Your task to perform on an android device: change notification settings in the gmail app Image 0: 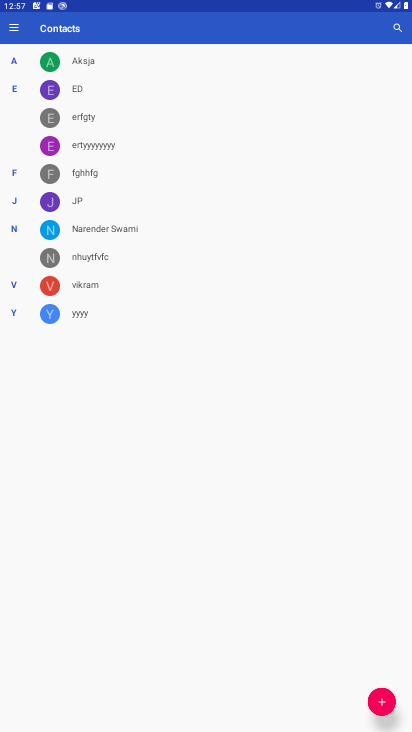
Step 0: press home button
Your task to perform on an android device: change notification settings in the gmail app Image 1: 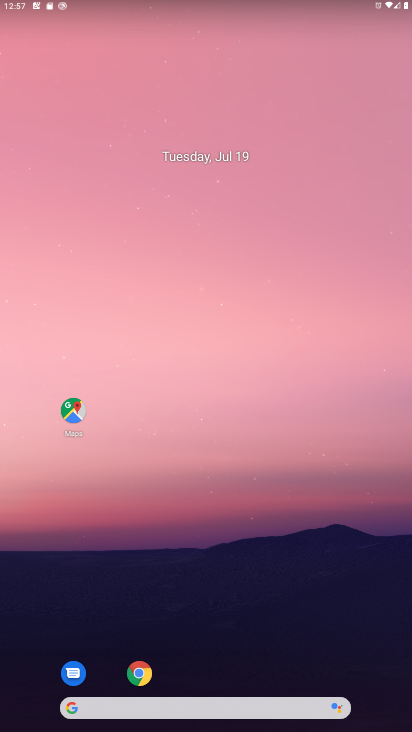
Step 1: drag from (213, 657) to (226, 169)
Your task to perform on an android device: change notification settings in the gmail app Image 2: 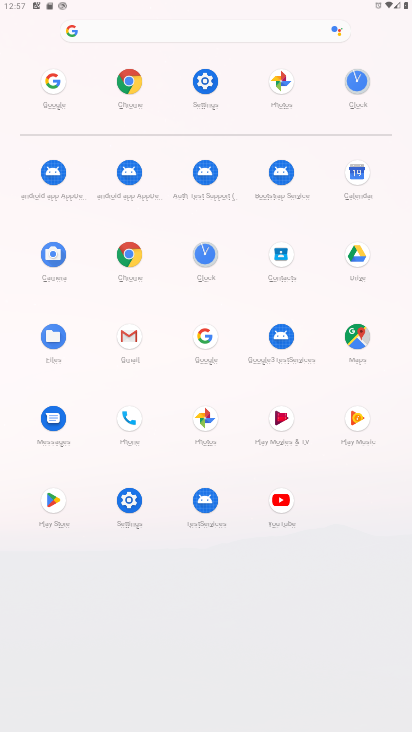
Step 2: click (142, 337)
Your task to perform on an android device: change notification settings in the gmail app Image 3: 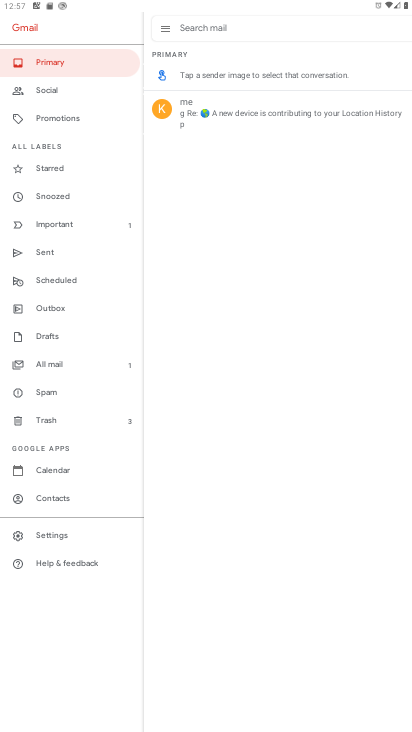
Step 3: click (56, 528)
Your task to perform on an android device: change notification settings in the gmail app Image 4: 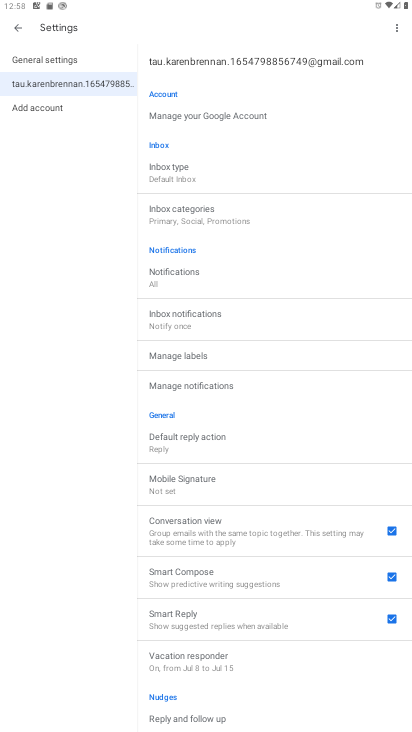
Step 4: click (207, 390)
Your task to perform on an android device: change notification settings in the gmail app Image 5: 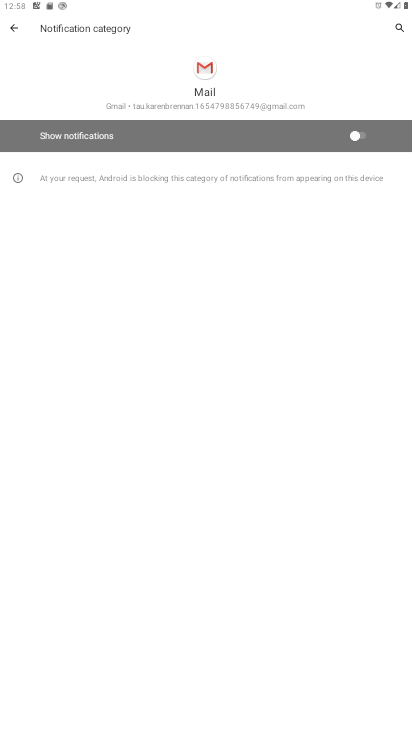
Step 5: click (359, 134)
Your task to perform on an android device: change notification settings in the gmail app Image 6: 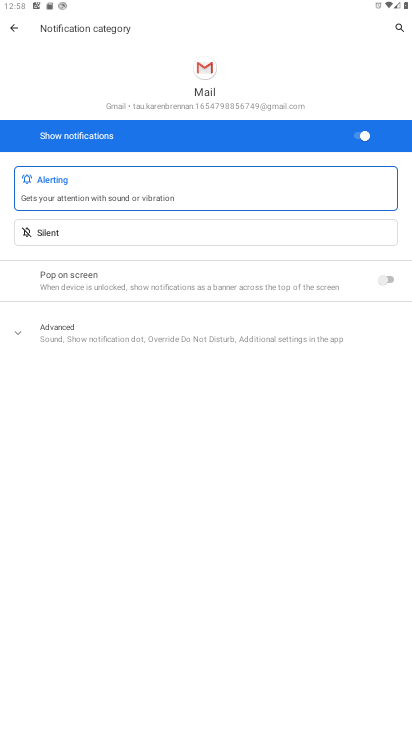
Step 6: task complete